Your task to perform on an android device: Go to display settings Image 0: 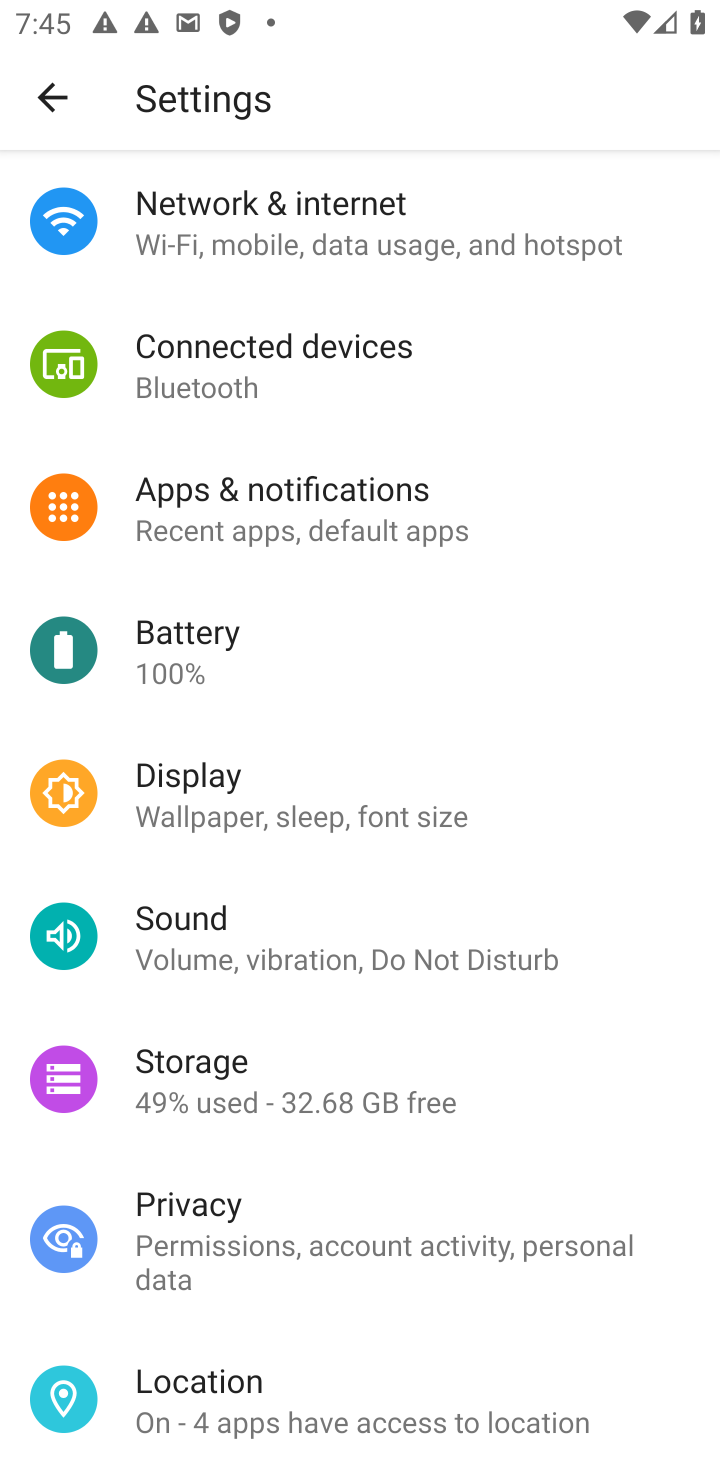
Step 0: click (170, 806)
Your task to perform on an android device: Go to display settings Image 1: 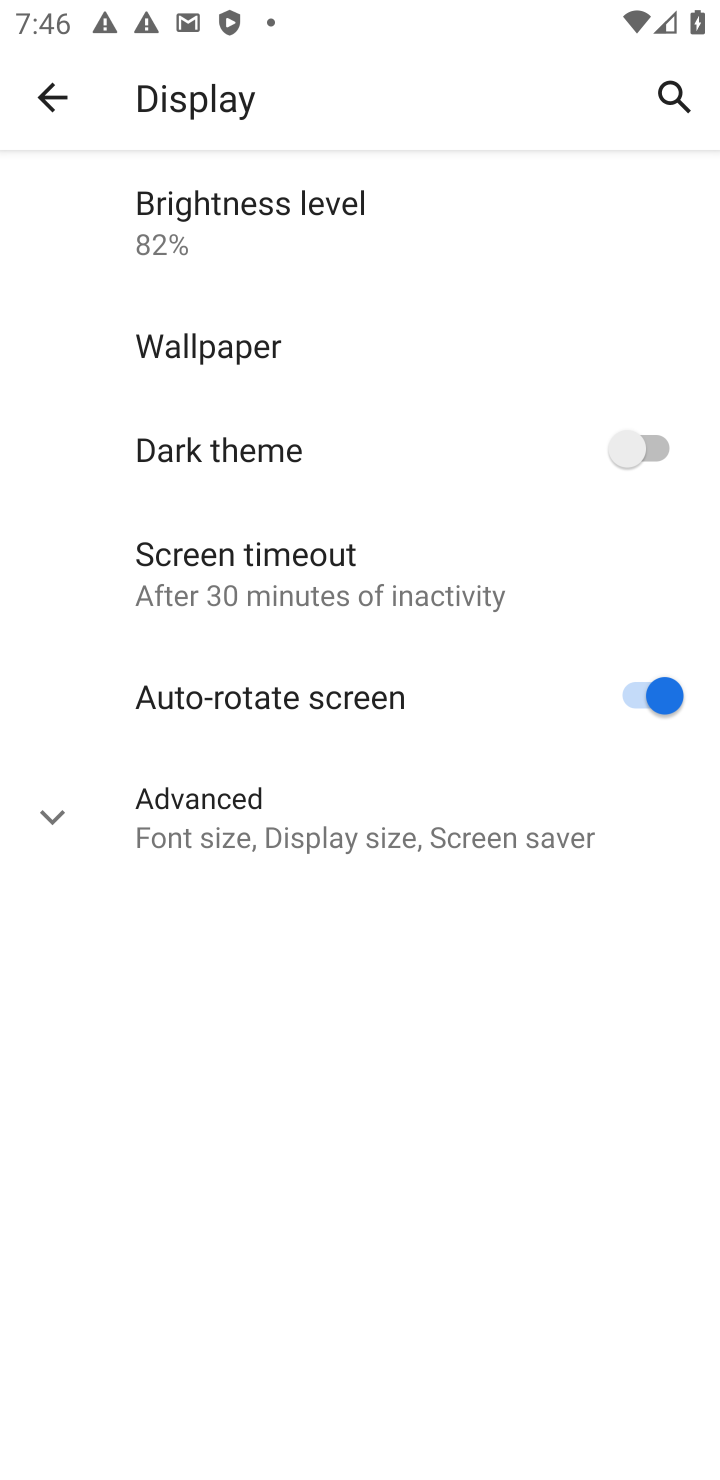
Step 1: task complete